Your task to perform on an android device: Open wifi settings Image 0: 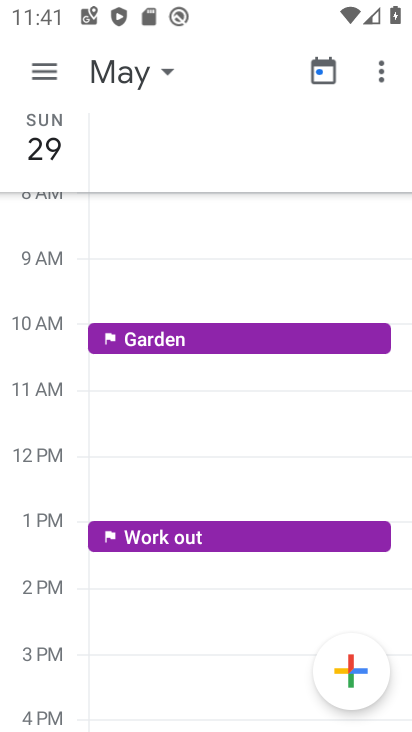
Step 0: press home button
Your task to perform on an android device: Open wifi settings Image 1: 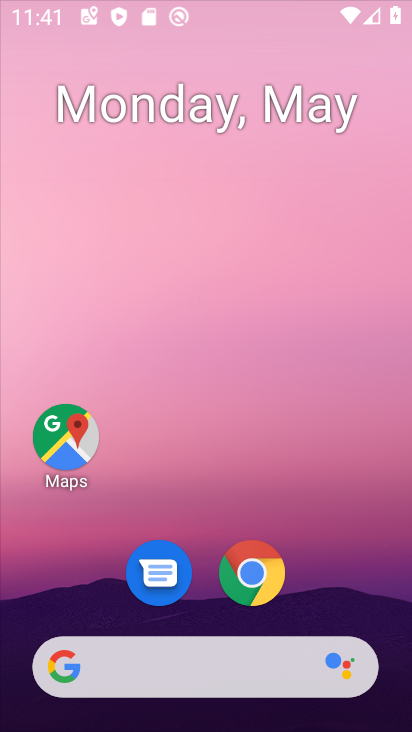
Step 1: drag from (196, 690) to (274, 22)
Your task to perform on an android device: Open wifi settings Image 2: 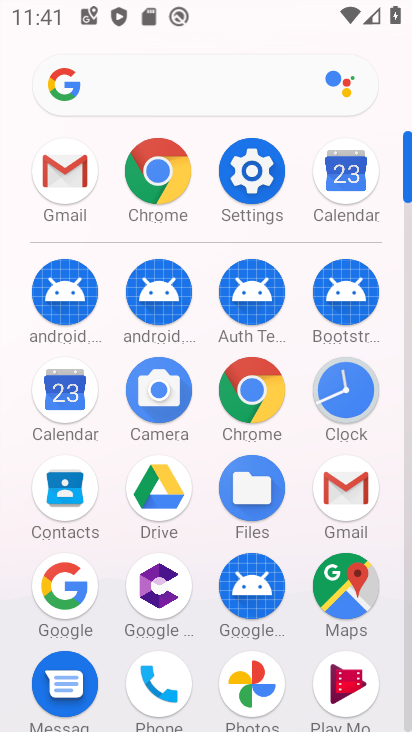
Step 2: click (252, 198)
Your task to perform on an android device: Open wifi settings Image 3: 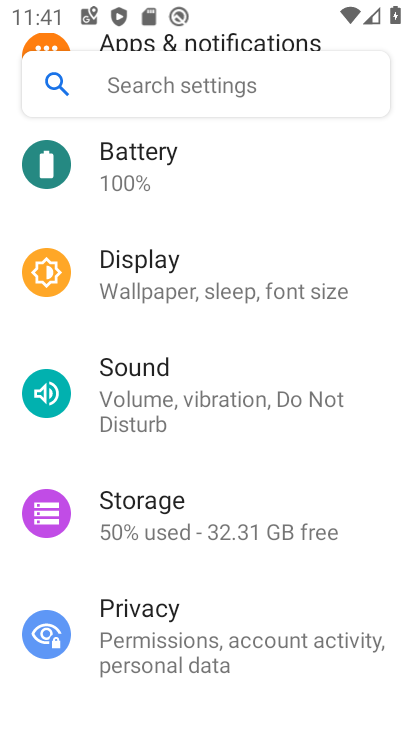
Step 3: drag from (214, 251) to (220, 724)
Your task to perform on an android device: Open wifi settings Image 4: 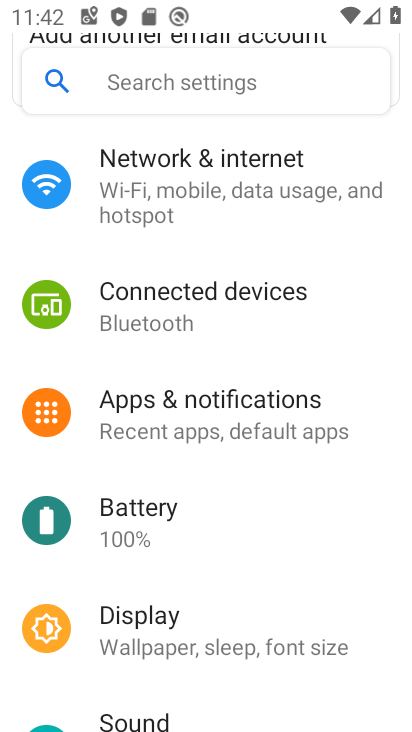
Step 4: drag from (229, 441) to (234, 705)
Your task to perform on an android device: Open wifi settings Image 5: 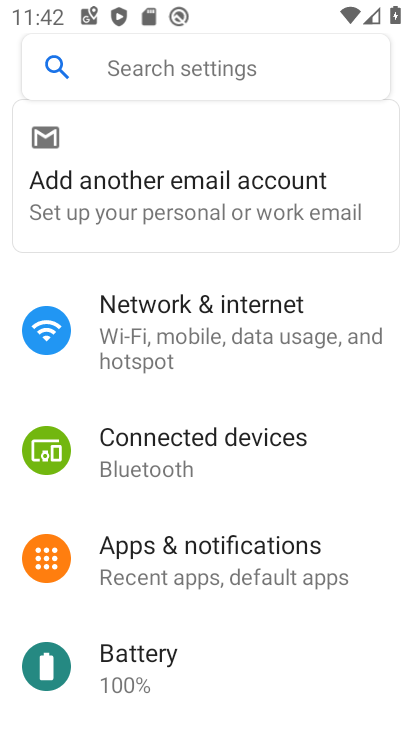
Step 5: drag from (235, 462) to (236, 728)
Your task to perform on an android device: Open wifi settings Image 6: 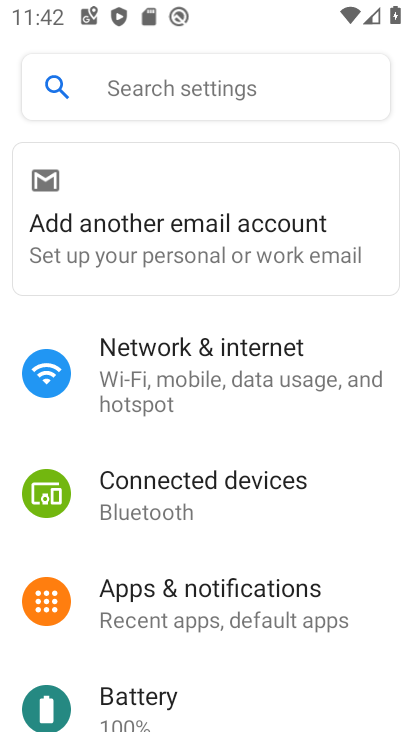
Step 6: click (230, 383)
Your task to perform on an android device: Open wifi settings Image 7: 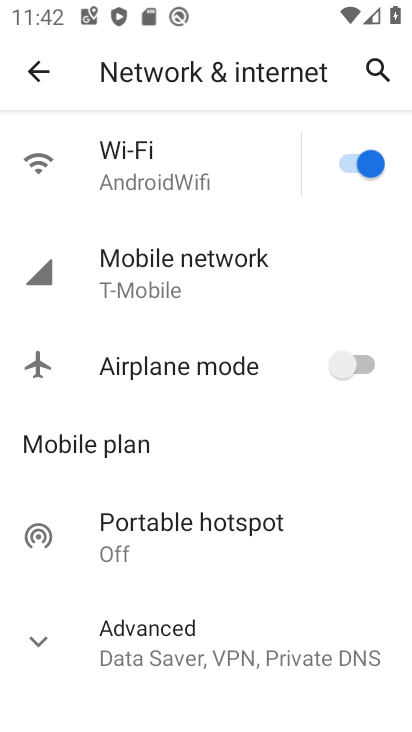
Step 7: click (196, 158)
Your task to perform on an android device: Open wifi settings Image 8: 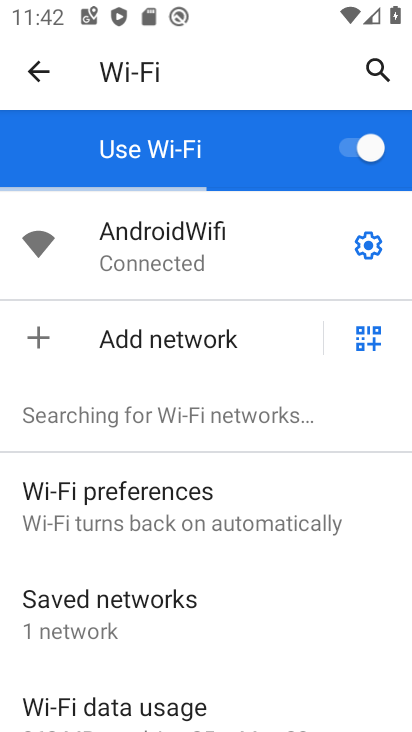
Step 8: task complete